Your task to perform on an android device: Search for pizza restaurants on Maps Image 0: 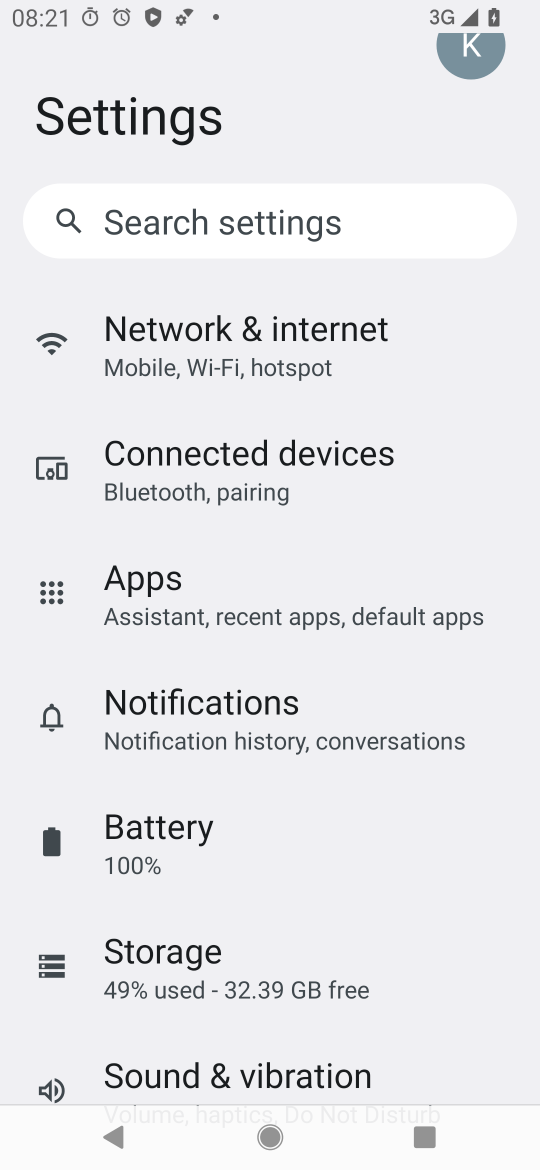
Step 0: press home button
Your task to perform on an android device: Search for pizza restaurants on Maps Image 1: 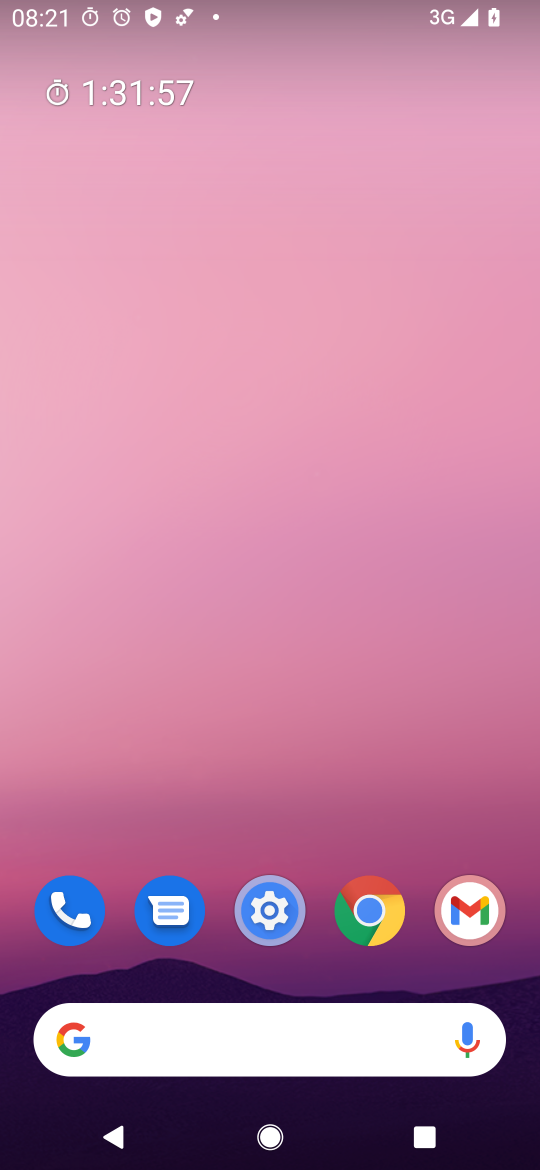
Step 1: drag from (281, 1016) to (283, 258)
Your task to perform on an android device: Search for pizza restaurants on Maps Image 2: 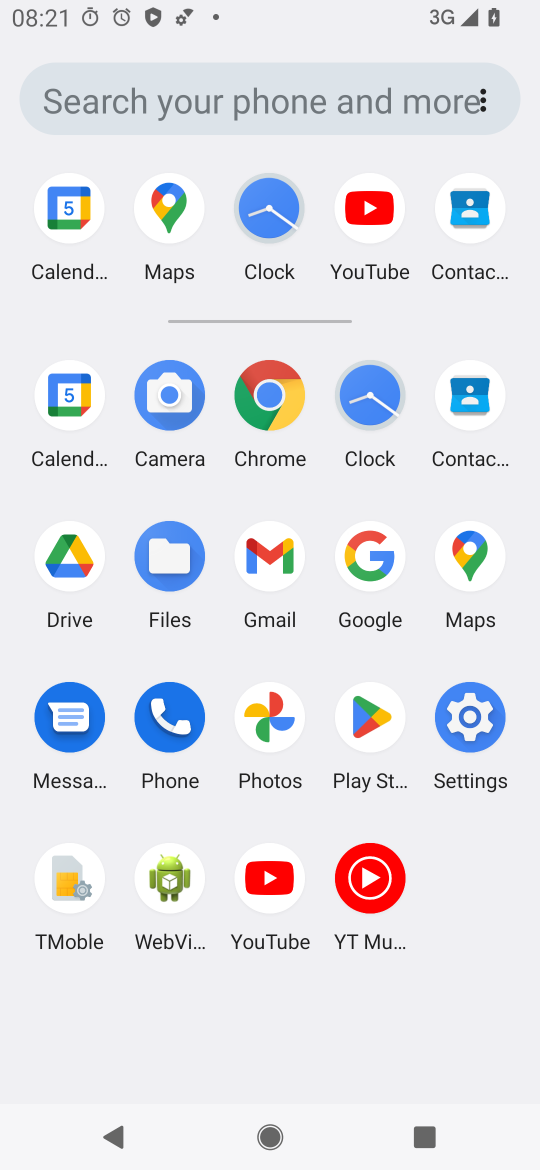
Step 2: click (464, 553)
Your task to perform on an android device: Search for pizza restaurants on Maps Image 3: 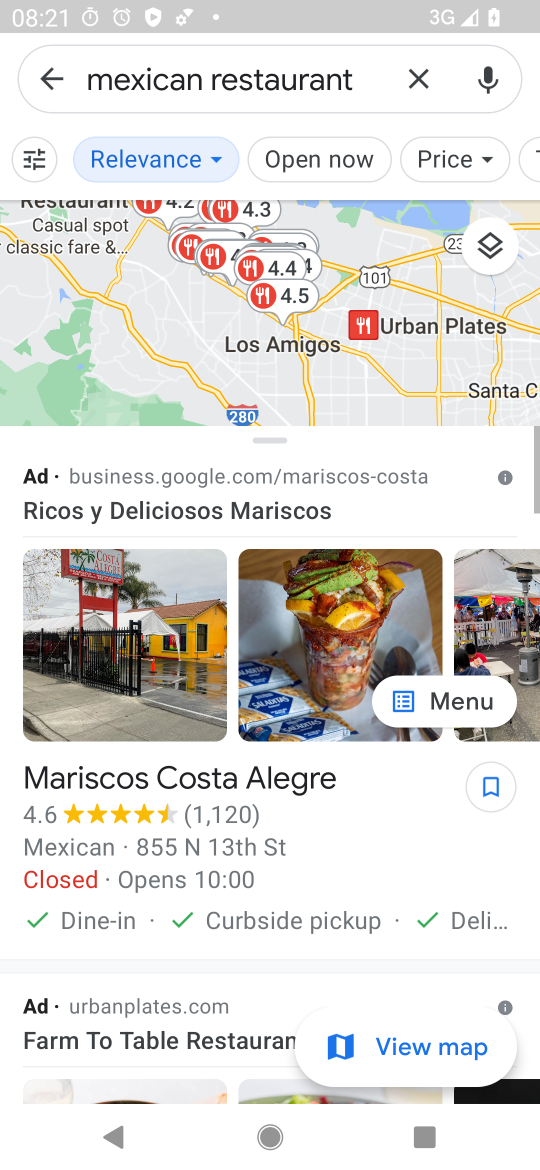
Step 3: click (419, 80)
Your task to perform on an android device: Search for pizza restaurants on Maps Image 4: 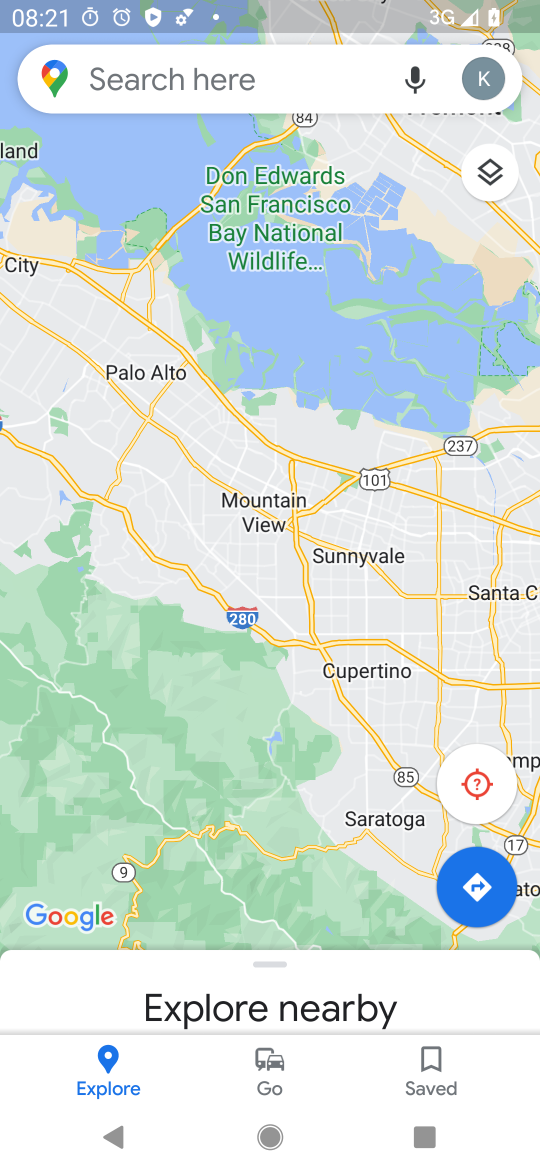
Step 4: click (163, 77)
Your task to perform on an android device: Search for pizza restaurants on Maps Image 5: 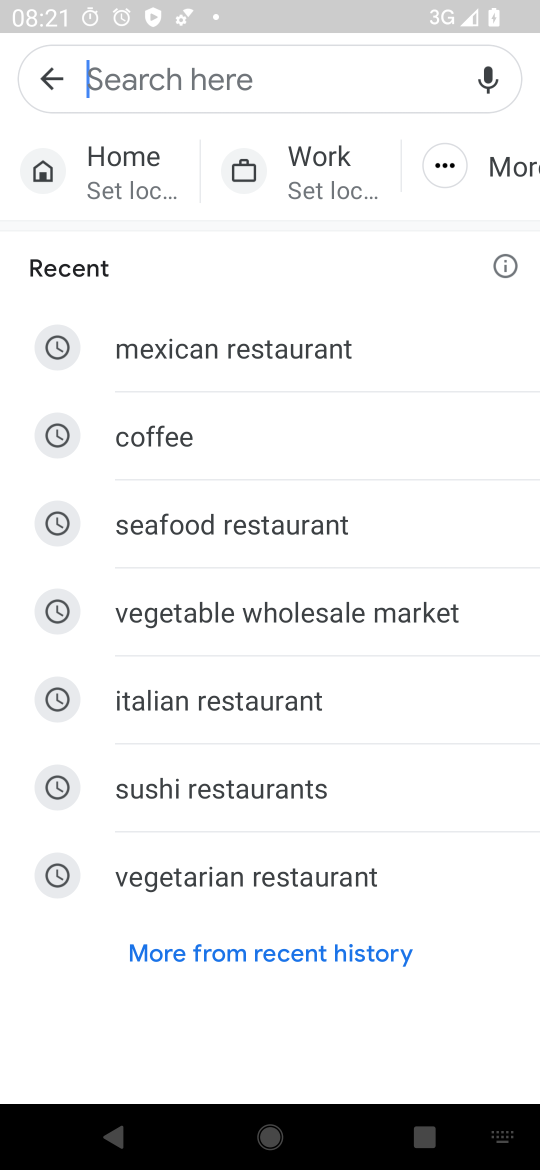
Step 5: type "pizza restaurant"
Your task to perform on an android device: Search for pizza restaurants on Maps Image 6: 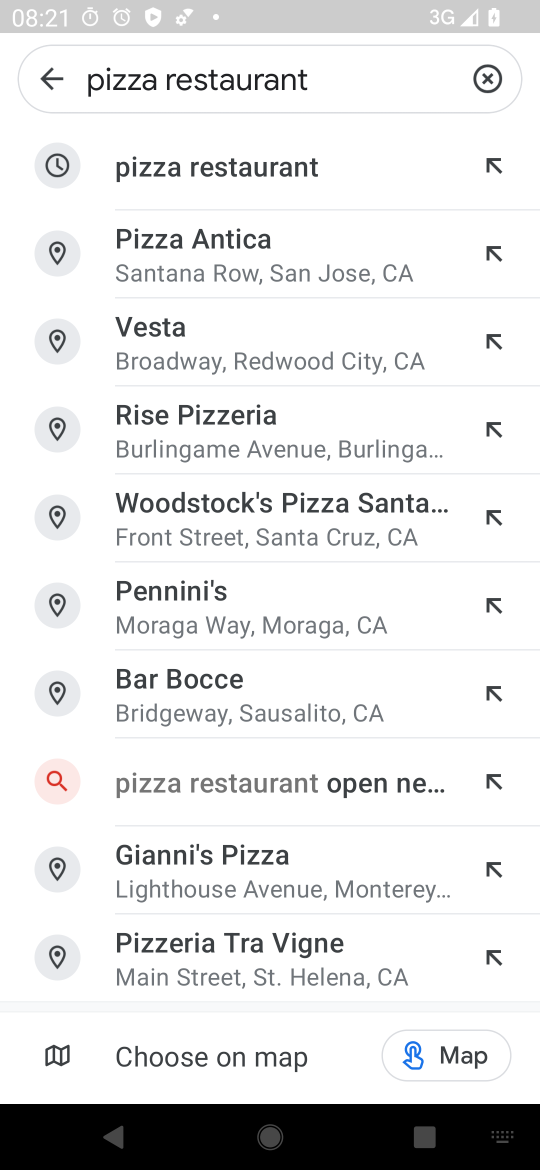
Step 6: click (242, 171)
Your task to perform on an android device: Search for pizza restaurants on Maps Image 7: 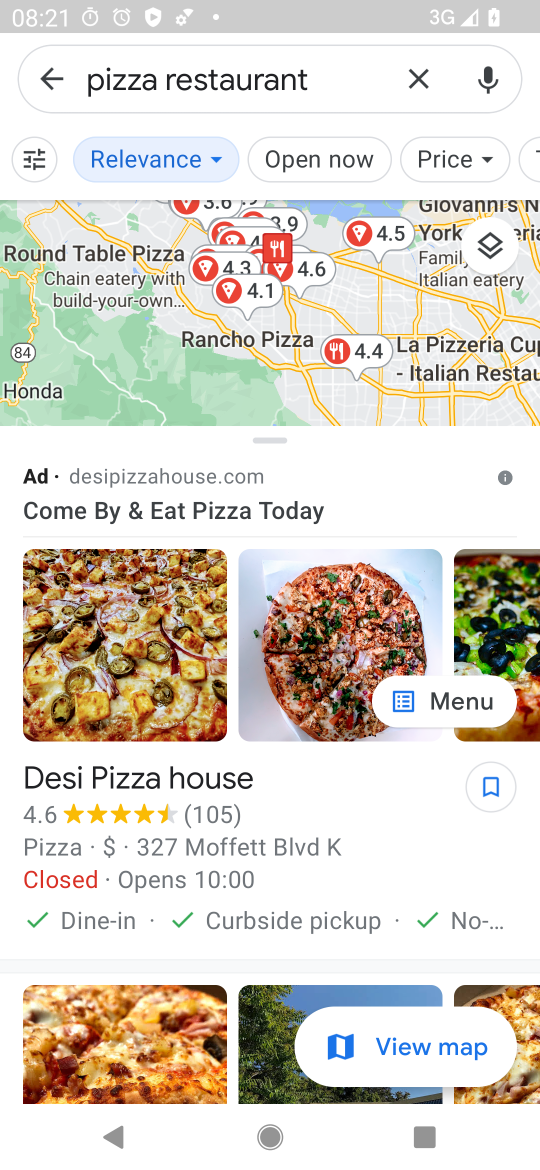
Step 7: task complete